Your task to perform on an android device: toggle notification dots Image 0: 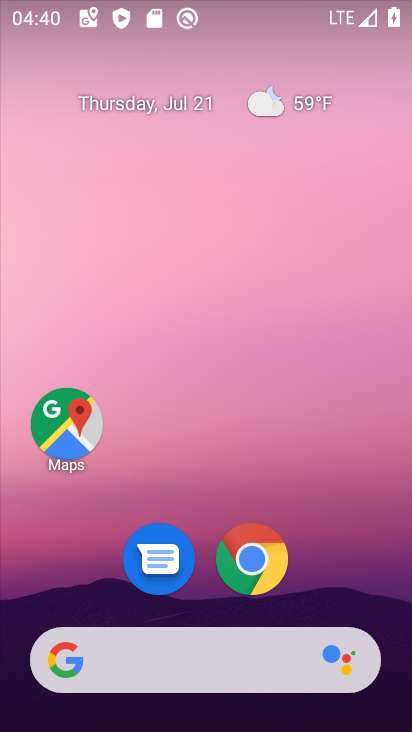
Step 0: drag from (99, 606) to (238, 0)
Your task to perform on an android device: toggle notification dots Image 1: 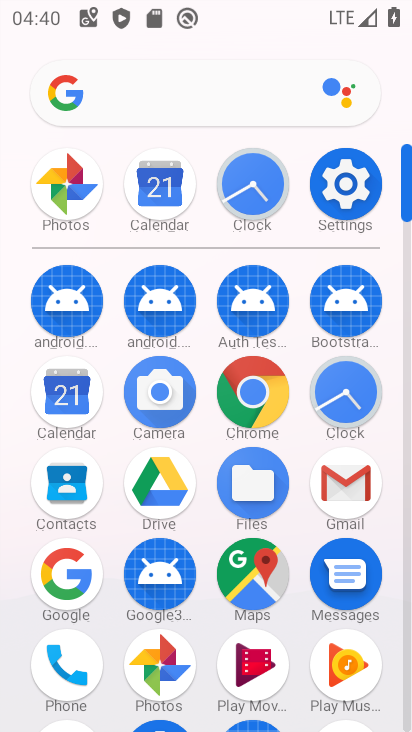
Step 1: click (346, 186)
Your task to perform on an android device: toggle notification dots Image 2: 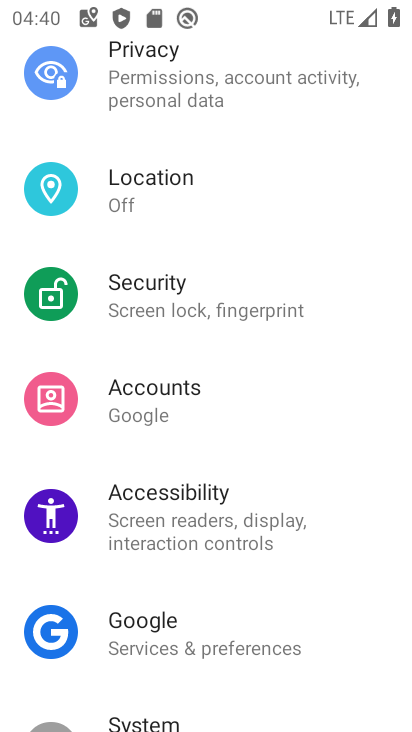
Step 2: drag from (237, 212) to (176, 731)
Your task to perform on an android device: toggle notification dots Image 3: 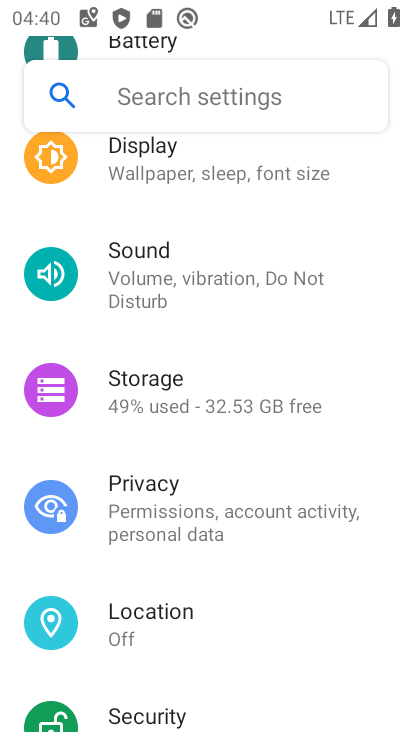
Step 3: drag from (207, 229) to (165, 730)
Your task to perform on an android device: toggle notification dots Image 4: 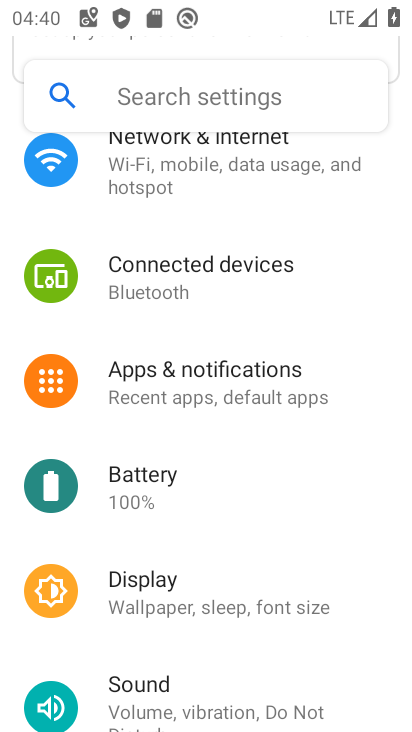
Step 4: click (188, 386)
Your task to perform on an android device: toggle notification dots Image 5: 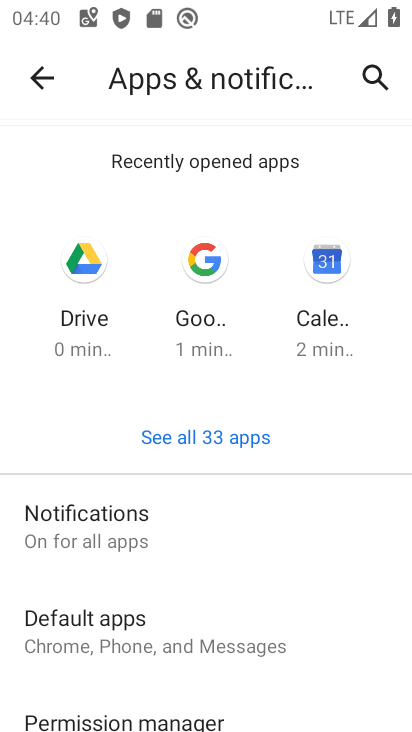
Step 5: click (108, 541)
Your task to perform on an android device: toggle notification dots Image 6: 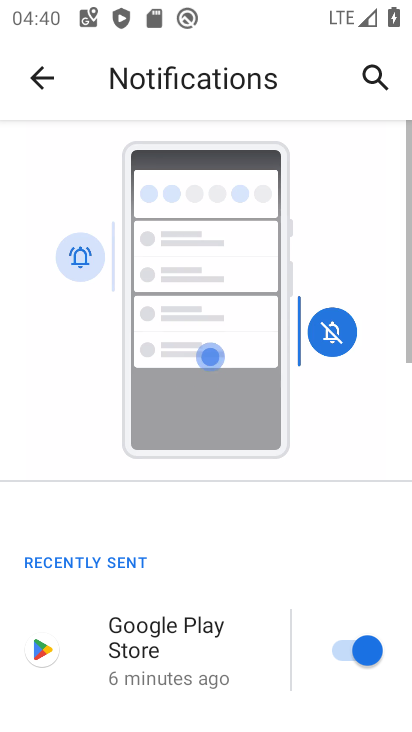
Step 6: drag from (123, 692) to (248, 63)
Your task to perform on an android device: toggle notification dots Image 7: 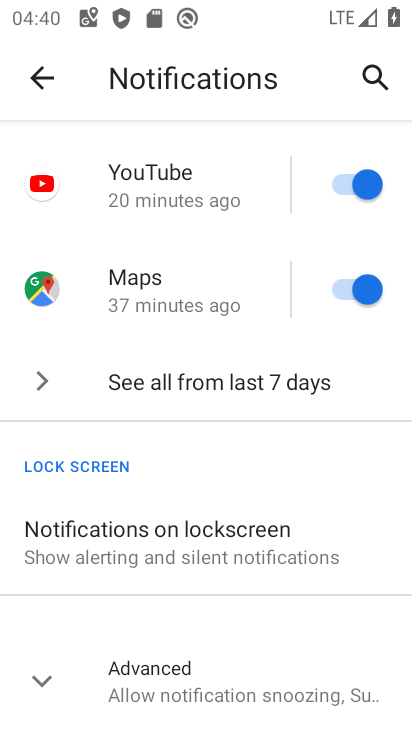
Step 7: click (217, 678)
Your task to perform on an android device: toggle notification dots Image 8: 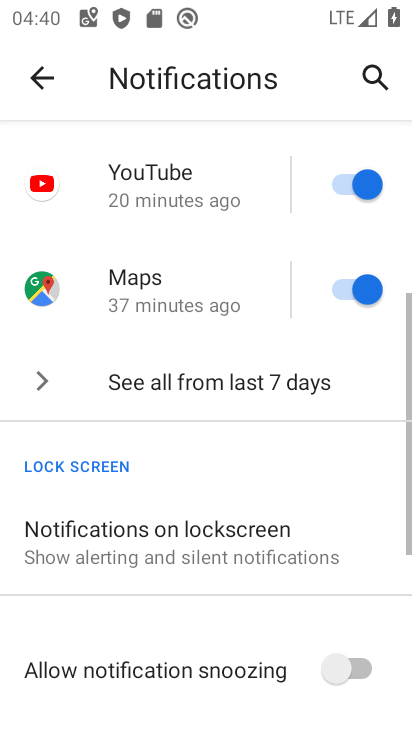
Step 8: drag from (233, 661) to (255, 156)
Your task to perform on an android device: toggle notification dots Image 9: 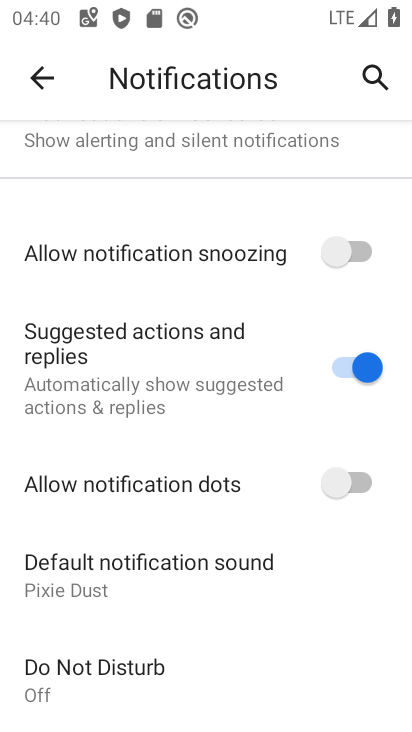
Step 9: click (342, 475)
Your task to perform on an android device: toggle notification dots Image 10: 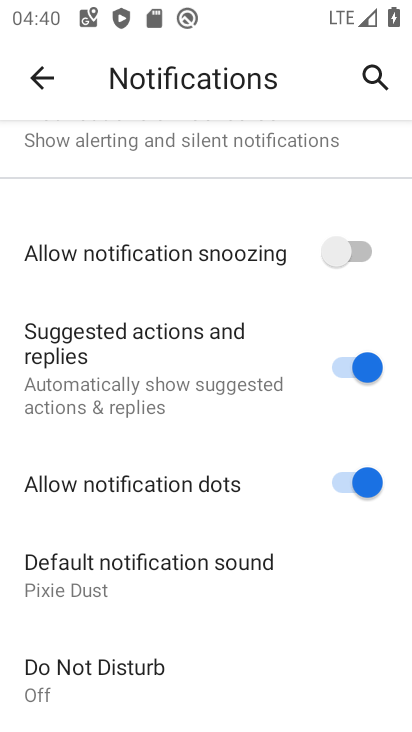
Step 10: task complete